Your task to perform on an android device: View the shopping cart on target.com. Search for "beats solo 3" on target.com, select the first entry, add it to the cart, then select checkout. Image 0: 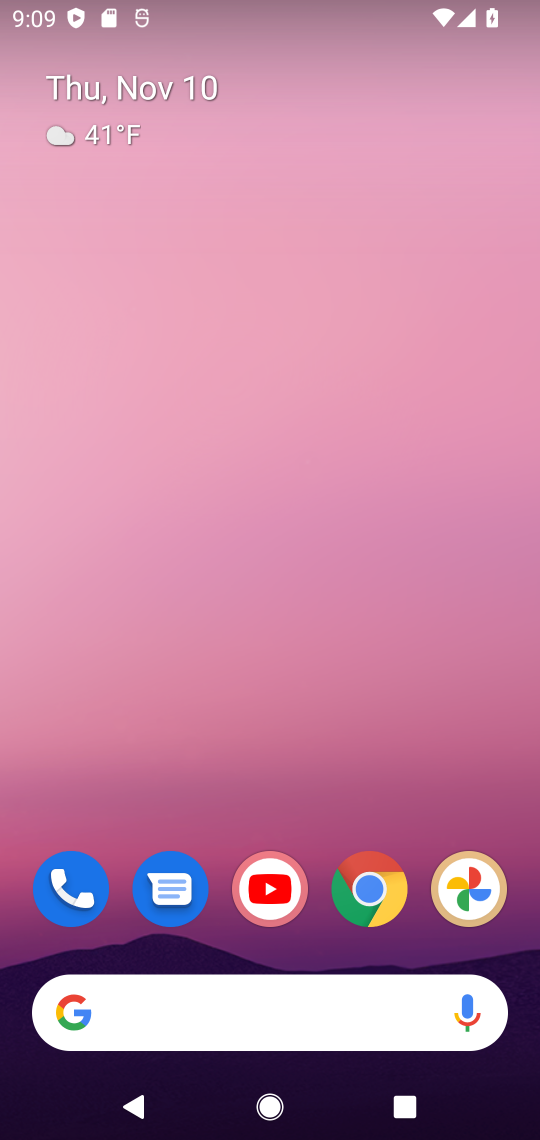
Step 0: click (370, 889)
Your task to perform on an android device: View the shopping cart on target.com. Search for "beats solo 3" on target.com, select the first entry, add it to the cart, then select checkout. Image 1: 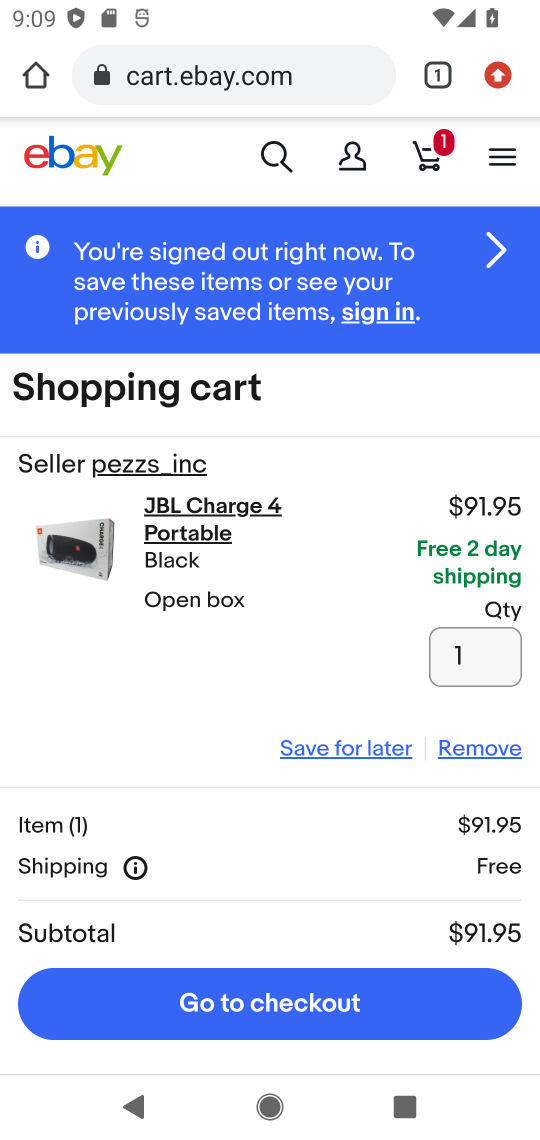
Step 1: click (331, 66)
Your task to perform on an android device: View the shopping cart on target.com. Search for "beats solo 3" on target.com, select the first entry, add it to the cart, then select checkout. Image 2: 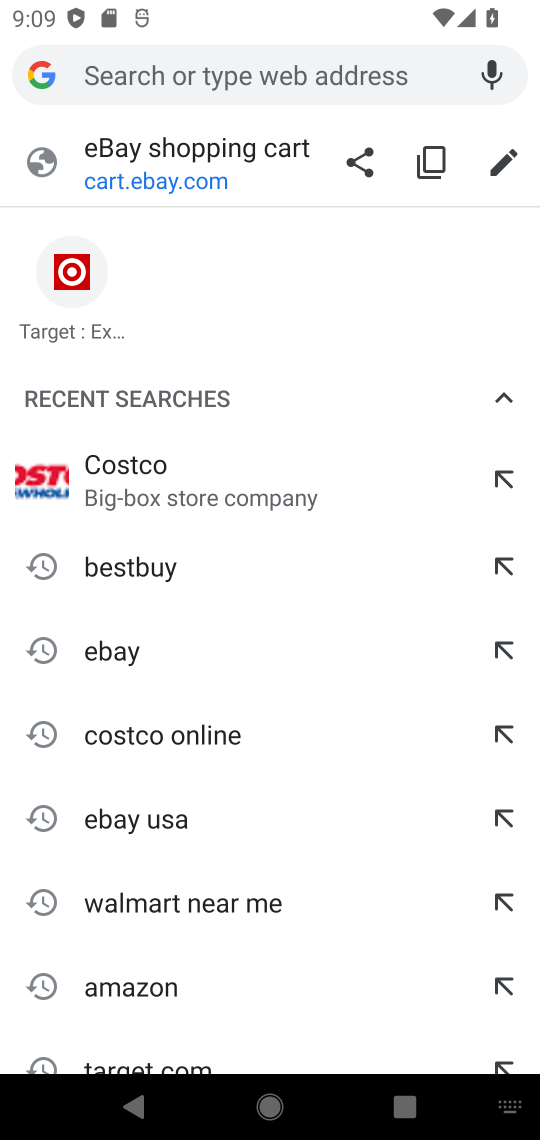
Step 2: drag from (202, 905) to (358, 561)
Your task to perform on an android device: View the shopping cart on target.com. Search for "beats solo 3" on target.com, select the first entry, add it to the cart, then select checkout. Image 3: 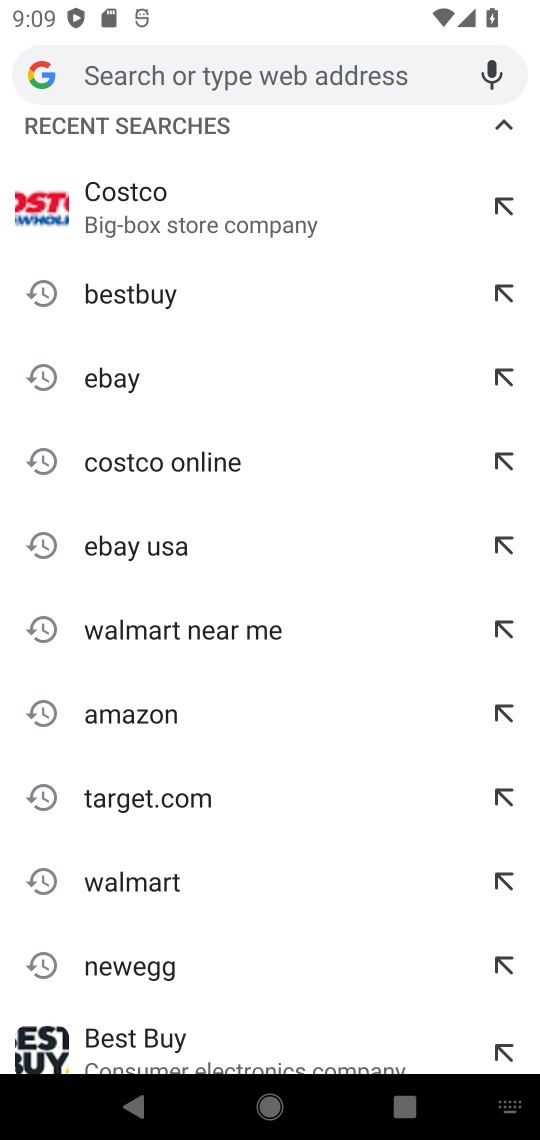
Step 3: click (128, 795)
Your task to perform on an android device: View the shopping cart on target.com. Search for "beats solo 3" on target.com, select the first entry, add it to the cart, then select checkout. Image 4: 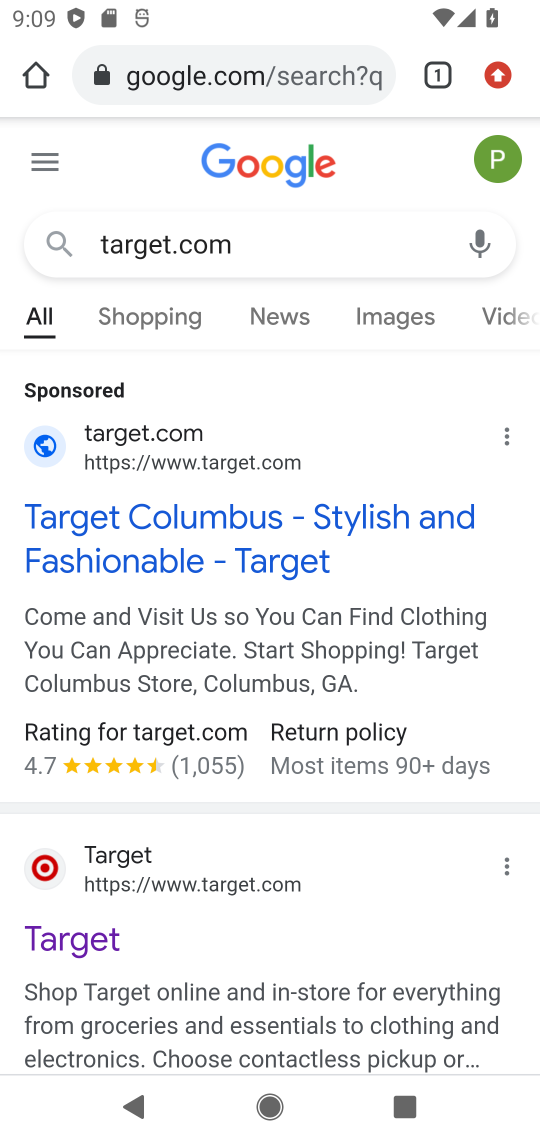
Step 4: click (63, 938)
Your task to perform on an android device: View the shopping cart on target.com. Search for "beats solo 3" on target.com, select the first entry, add it to the cart, then select checkout. Image 5: 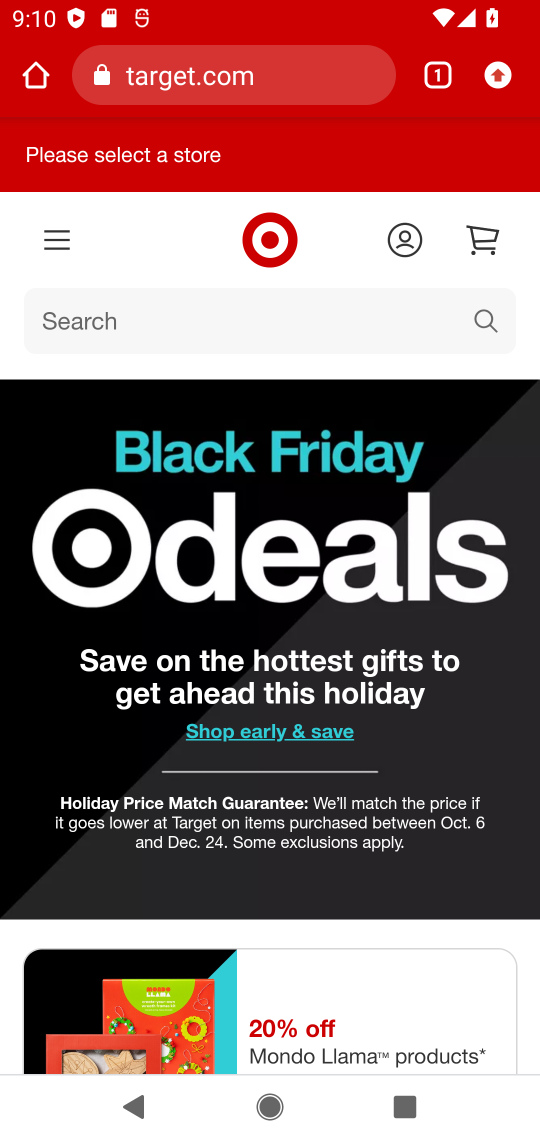
Step 5: click (178, 311)
Your task to perform on an android device: View the shopping cart on target.com. Search for "beats solo 3" on target.com, select the first entry, add it to the cart, then select checkout. Image 6: 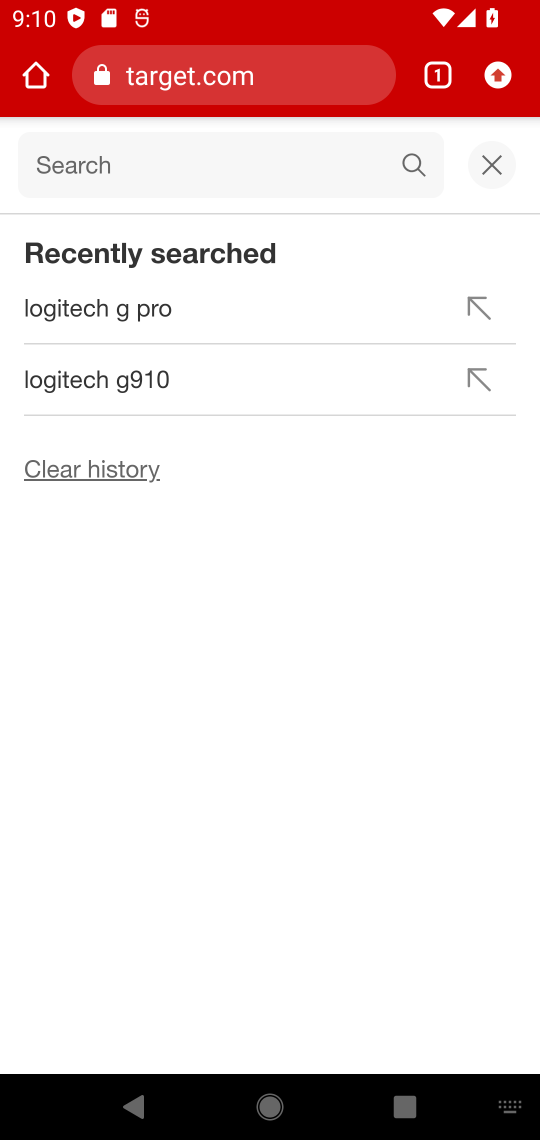
Step 6: press enter
Your task to perform on an android device: View the shopping cart on target.com. Search for "beats solo 3" on target.com, select the first entry, add it to the cart, then select checkout. Image 7: 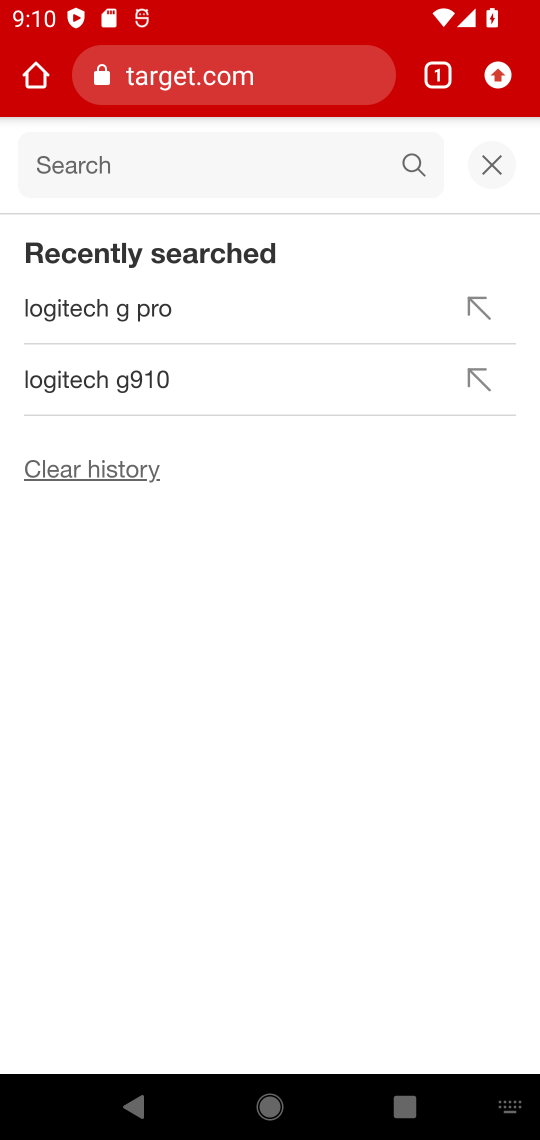
Step 7: type "beats solo 3"
Your task to perform on an android device: View the shopping cart on target.com. Search for "beats solo 3" on target.com, select the first entry, add it to the cart, then select checkout. Image 8: 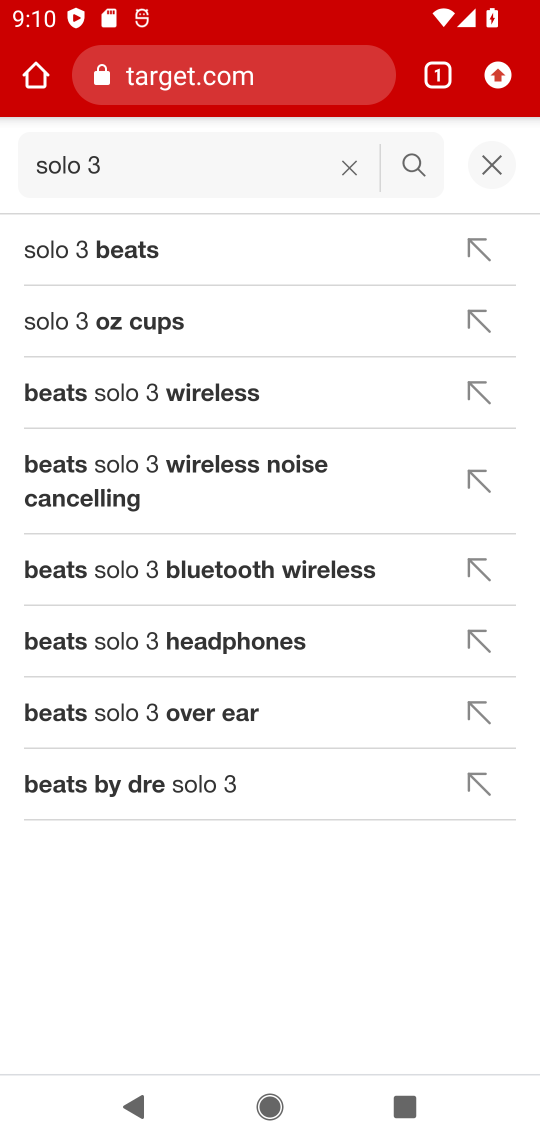
Step 8: click (336, 155)
Your task to perform on an android device: View the shopping cart on target.com. Search for "beats solo 3" on target.com, select the first entry, add it to the cart, then select checkout. Image 9: 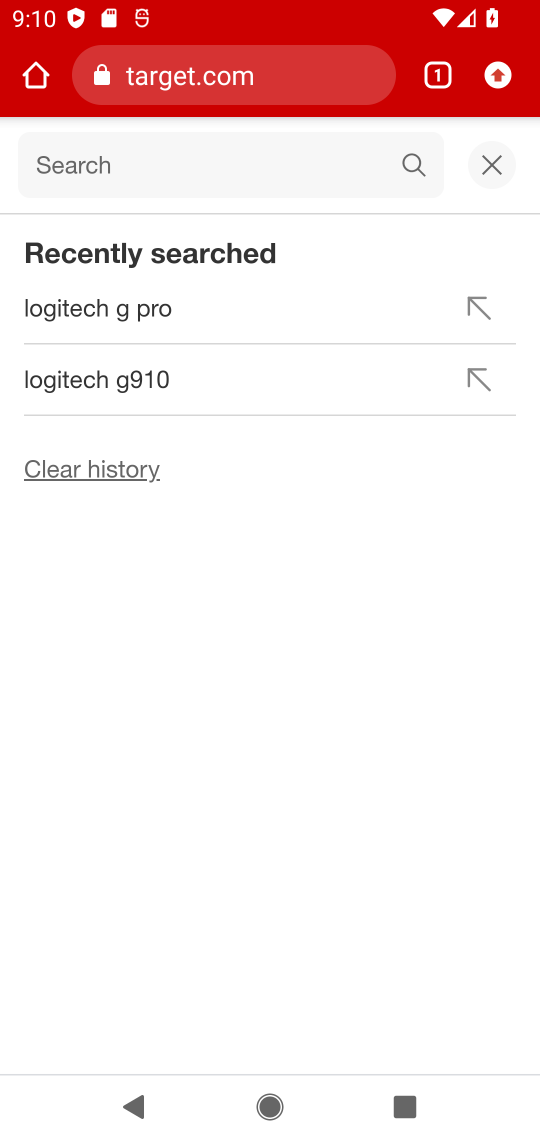
Step 9: type "beats solo 3"
Your task to perform on an android device: View the shopping cart on target.com. Search for "beats solo 3" on target.com, select the first entry, add it to the cart, then select checkout. Image 10: 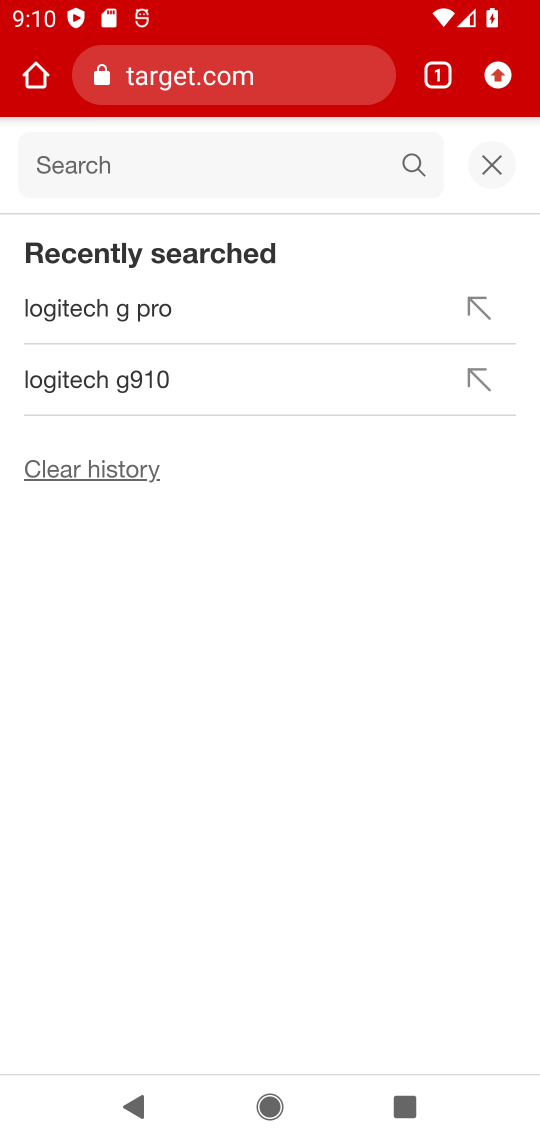
Step 10: press enter
Your task to perform on an android device: View the shopping cart on target.com. Search for "beats solo 3" on target.com, select the first entry, add it to the cart, then select checkout. Image 11: 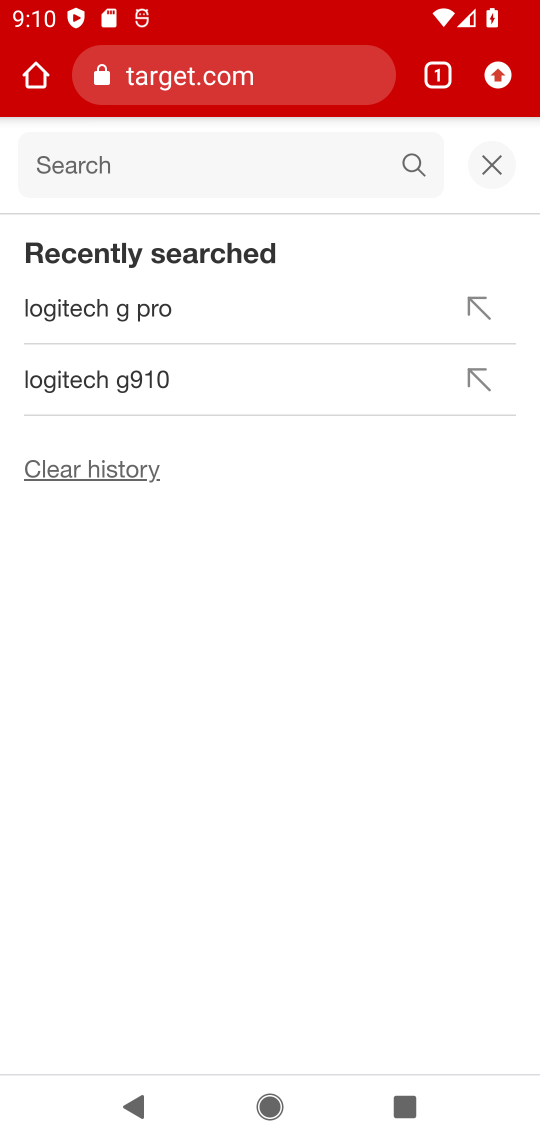
Step 11: click (61, 154)
Your task to perform on an android device: View the shopping cart on target.com. Search for "beats solo 3" on target.com, select the first entry, add it to the cart, then select checkout. Image 12: 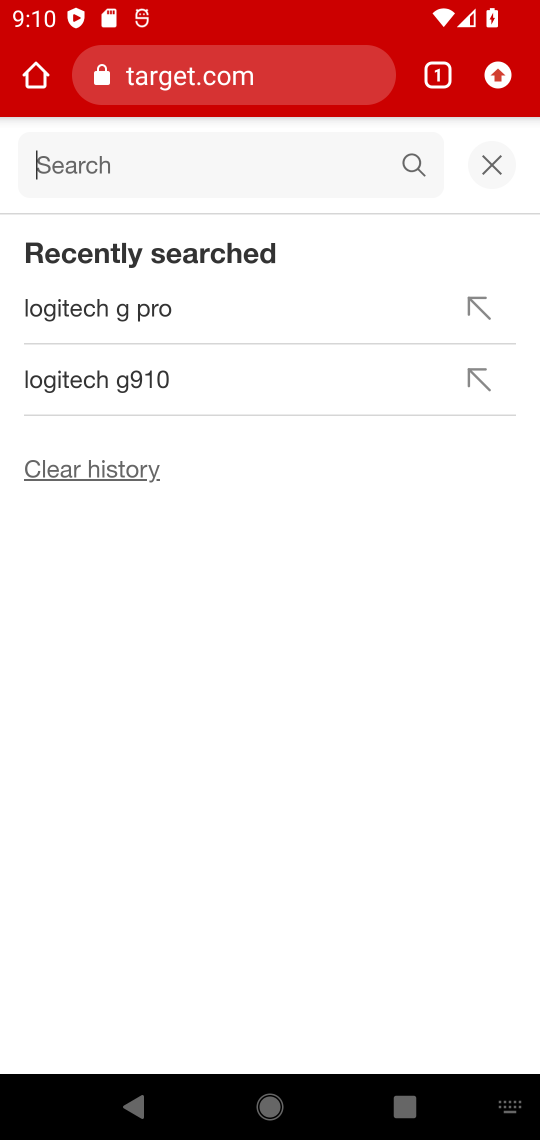
Step 12: type "beats solo 3"
Your task to perform on an android device: View the shopping cart on target.com. Search for "beats solo 3" on target.com, select the first entry, add it to the cart, then select checkout. Image 13: 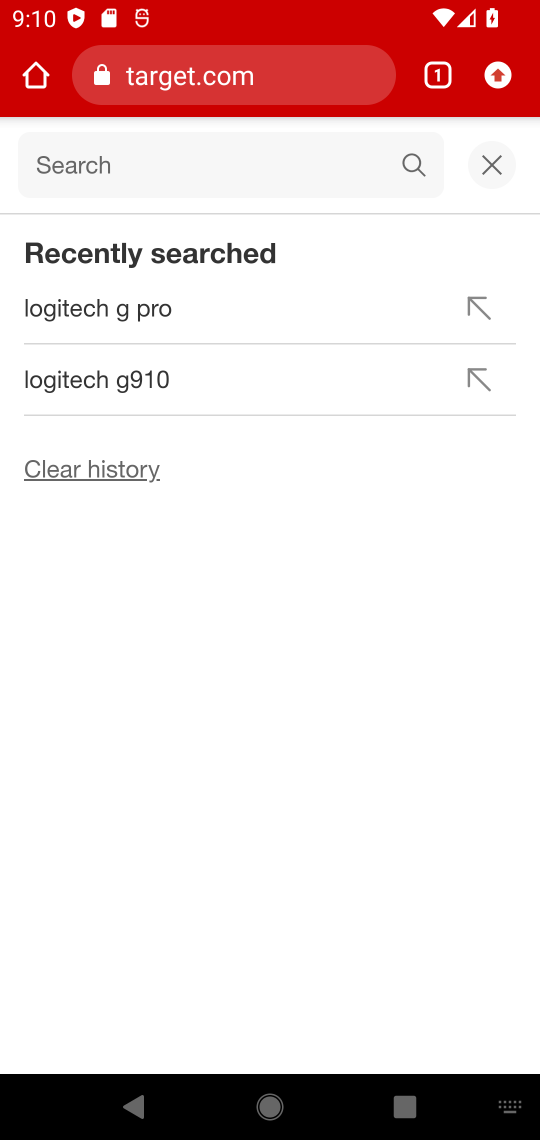
Step 13: press enter
Your task to perform on an android device: View the shopping cart on target.com. Search for "beats solo 3" on target.com, select the first entry, add it to the cart, then select checkout. Image 14: 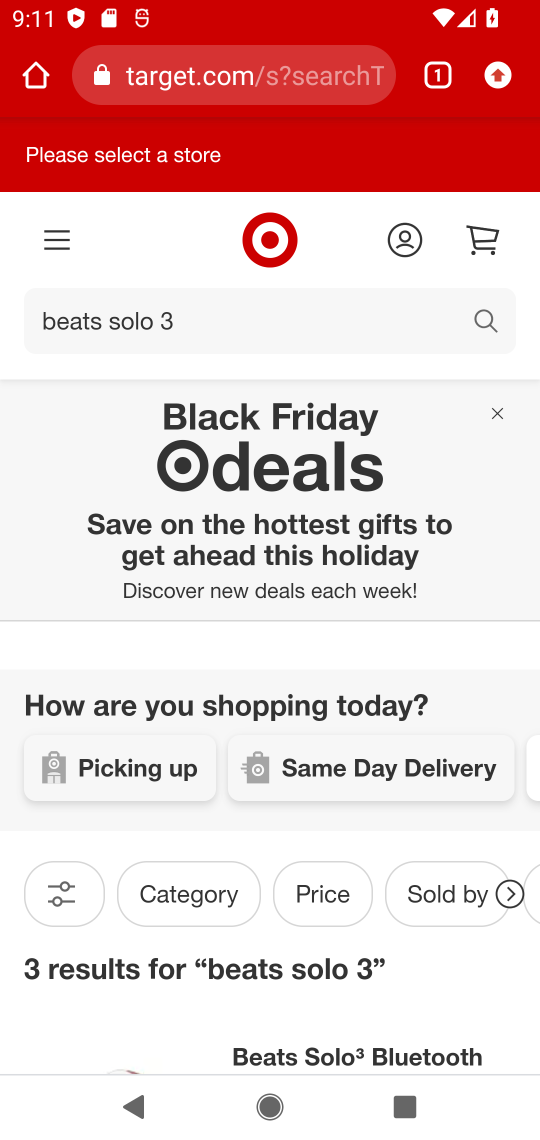
Step 14: task complete